Your task to perform on an android device: visit the assistant section in the google photos Image 0: 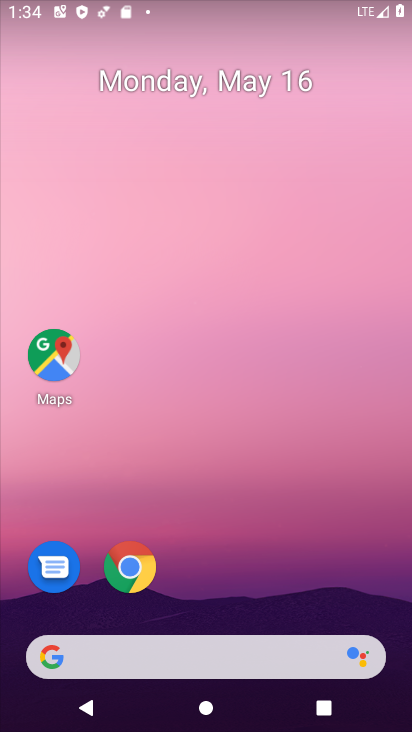
Step 0: drag from (251, 608) to (229, 269)
Your task to perform on an android device: visit the assistant section in the google photos Image 1: 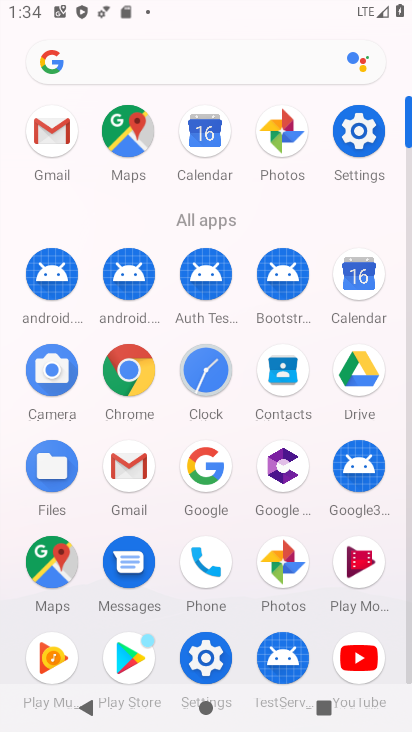
Step 1: click (279, 155)
Your task to perform on an android device: visit the assistant section in the google photos Image 2: 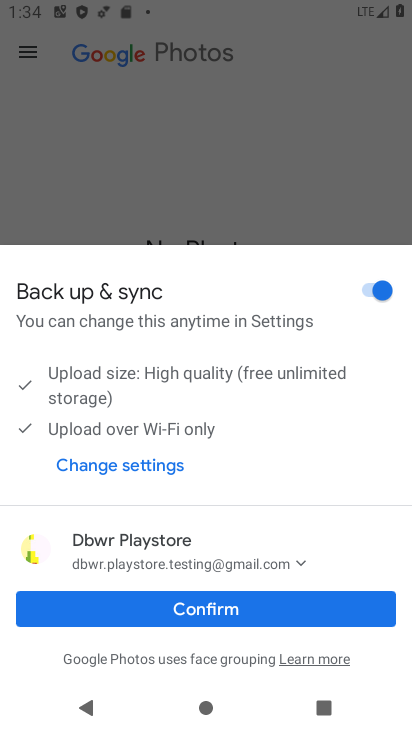
Step 2: click (279, 633)
Your task to perform on an android device: visit the assistant section in the google photos Image 3: 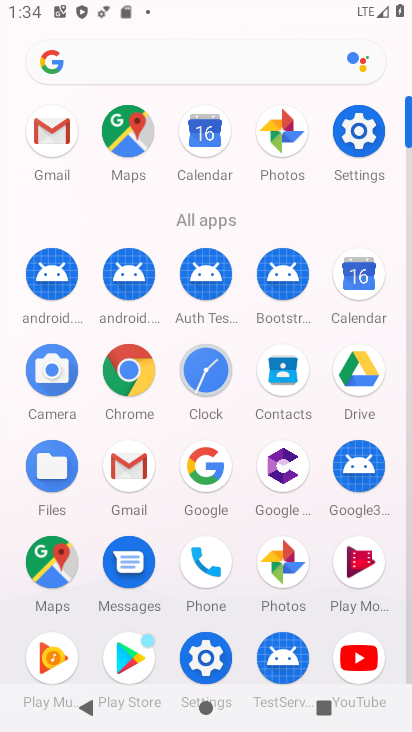
Step 3: click (280, 602)
Your task to perform on an android device: visit the assistant section in the google photos Image 4: 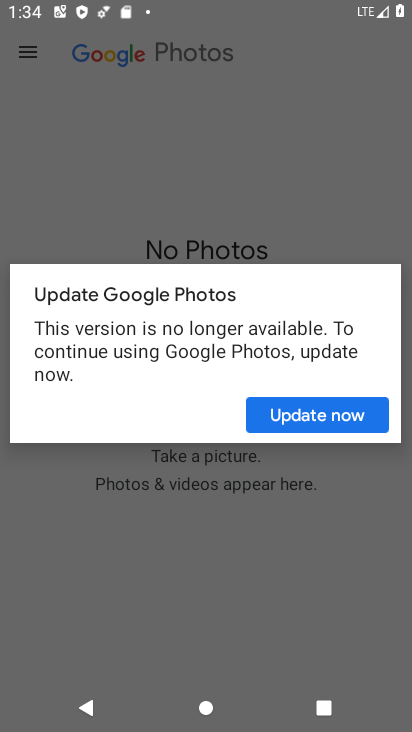
Step 4: click (295, 418)
Your task to perform on an android device: visit the assistant section in the google photos Image 5: 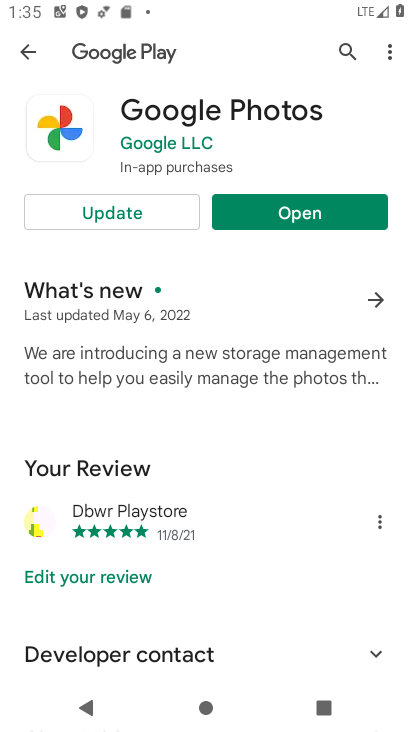
Step 5: click (147, 222)
Your task to perform on an android device: visit the assistant section in the google photos Image 6: 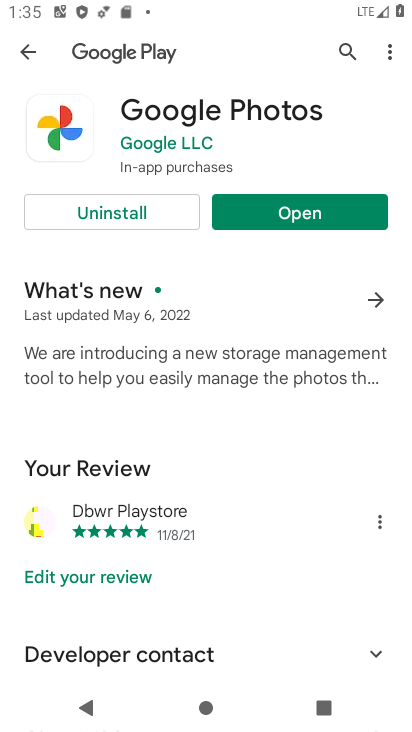
Step 6: click (271, 230)
Your task to perform on an android device: visit the assistant section in the google photos Image 7: 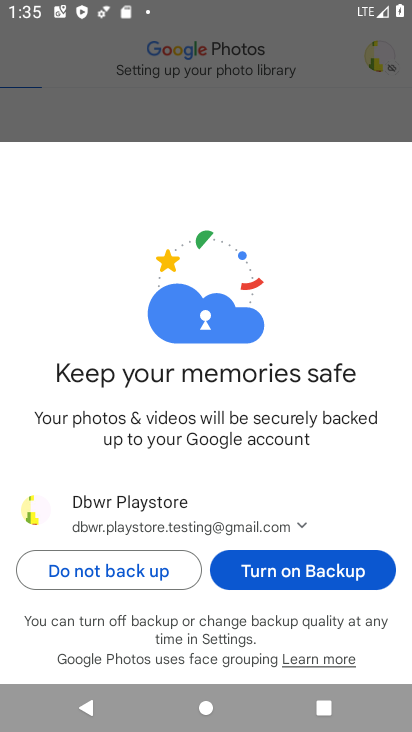
Step 7: click (270, 565)
Your task to perform on an android device: visit the assistant section in the google photos Image 8: 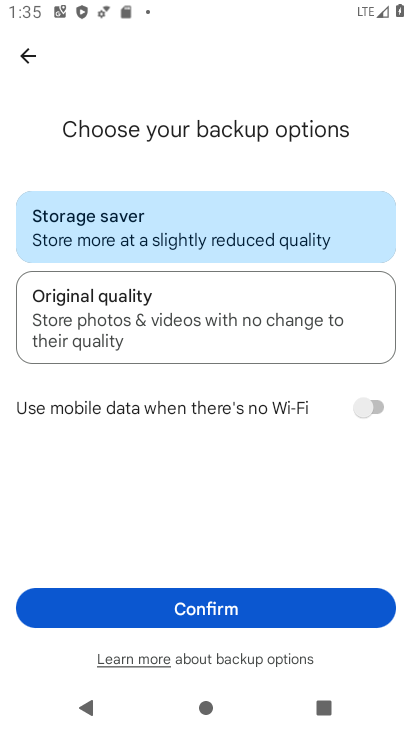
Step 8: click (271, 610)
Your task to perform on an android device: visit the assistant section in the google photos Image 9: 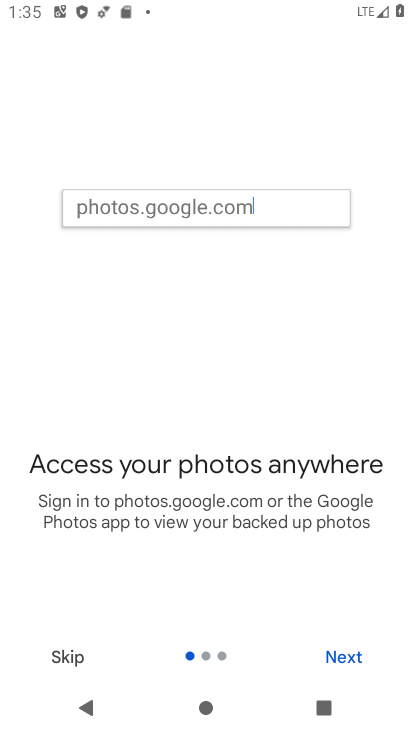
Step 9: click (338, 661)
Your task to perform on an android device: visit the assistant section in the google photos Image 10: 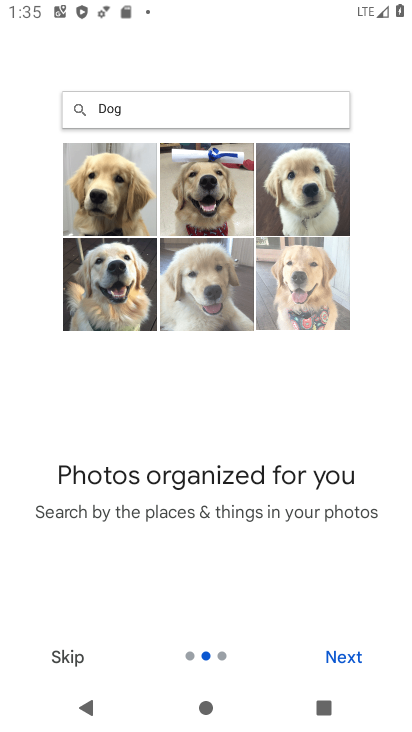
Step 10: click (338, 661)
Your task to perform on an android device: visit the assistant section in the google photos Image 11: 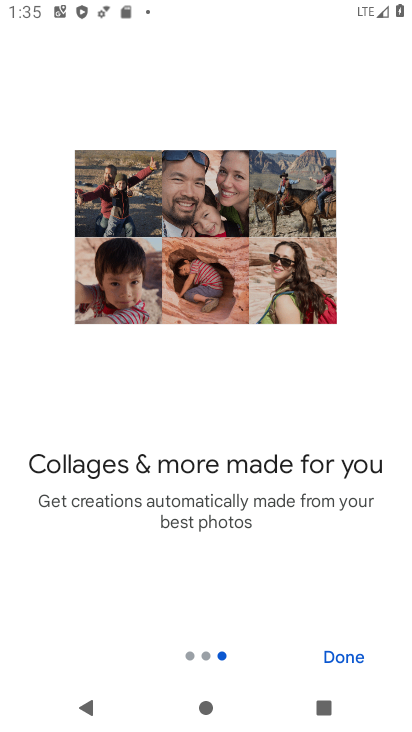
Step 11: click (338, 661)
Your task to perform on an android device: visit the assistant section in the google photos Image 12: 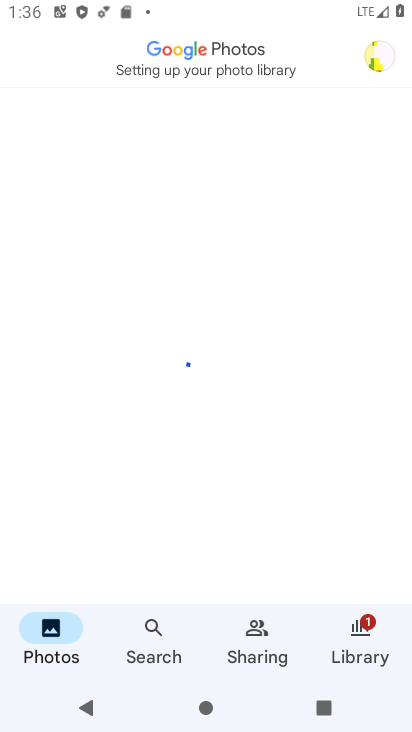
Step 12: click (355, 648)
Your task to perform on an android device: visit the assistant section in the google photos Image 13: 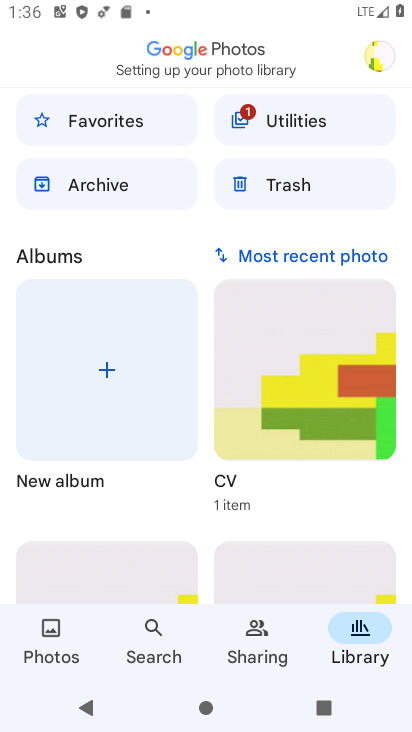
Step 13: task complete